Your task to perform on an android device: Go to ESPN.com Image 0: 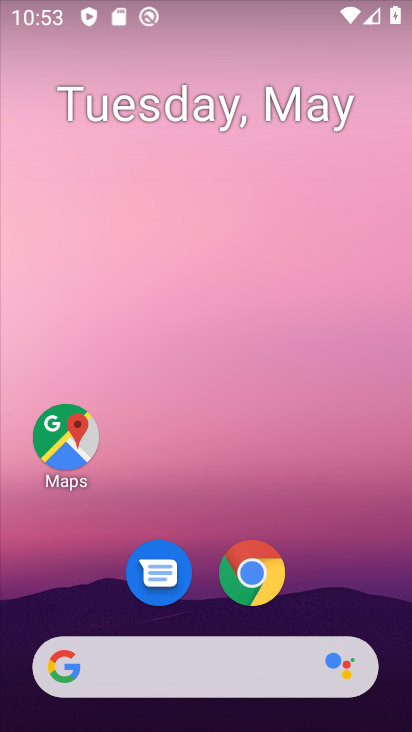
Step 0: drag from (251, 634) to (247, 321)
Your task to perform on an android device: Go to ESPN.com Image 1: 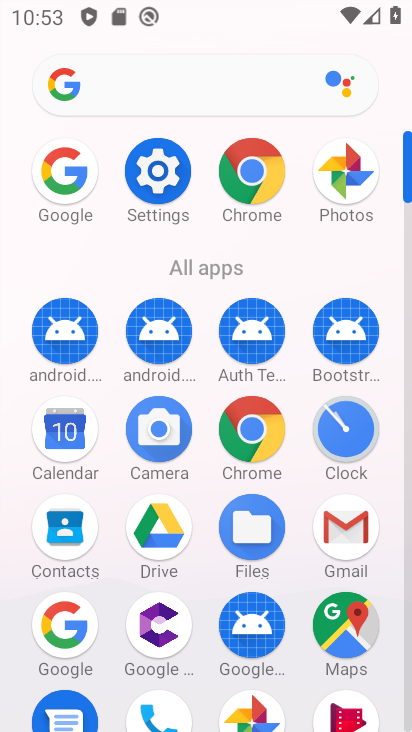
Step 1: click (252, 139)
Your task to perform on an android device: Go to ESPN.com Image 2: 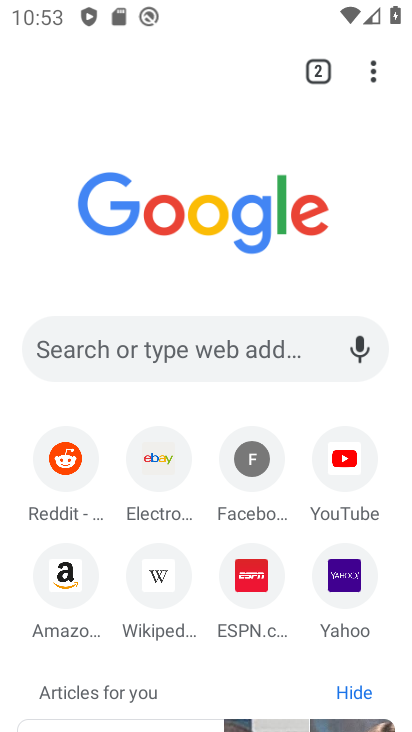
Step 2: click (251, 571)
Your task to perform on an android device: Go to ESPN.com Image 3: 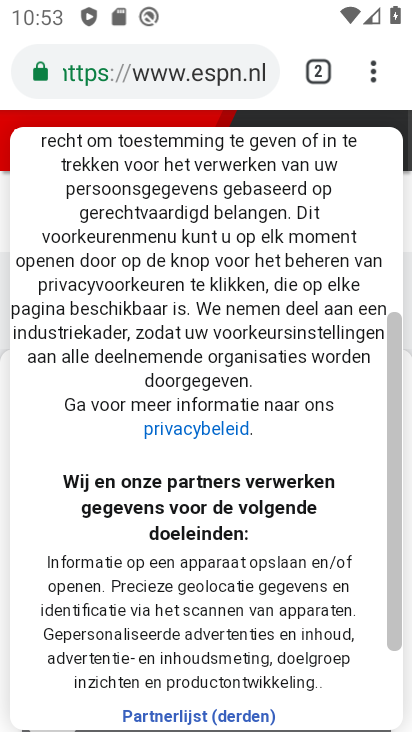
Step 3: task complete